Your task to perform on an android device: Go to location settings Image 0: 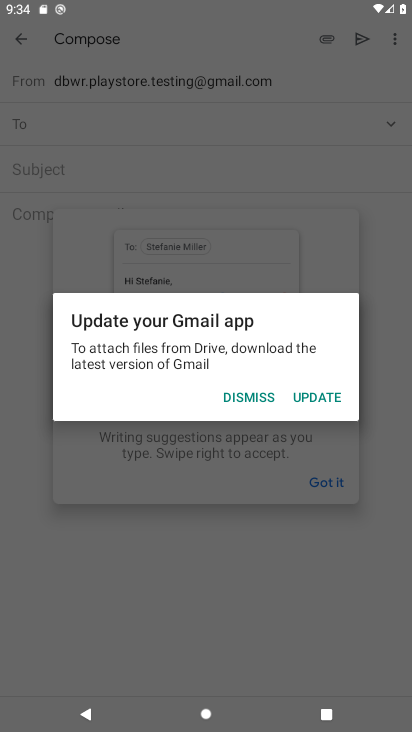
Step 0: press back button
Your task to perform on an android device: Go to location settings Image 1: 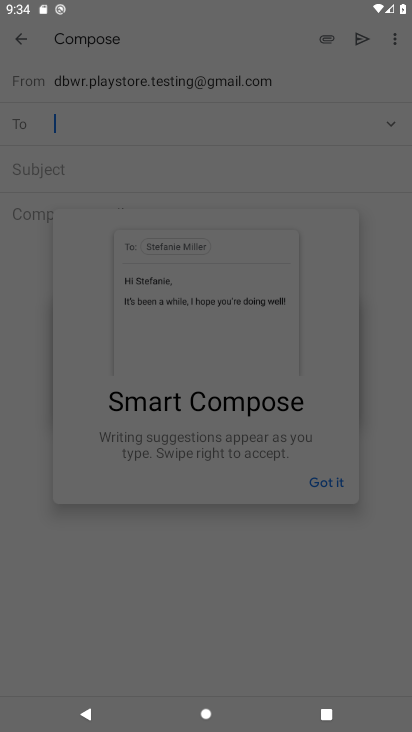
Step 1: press back button
Your task to perform on an android device: Go to location settings Image 2: 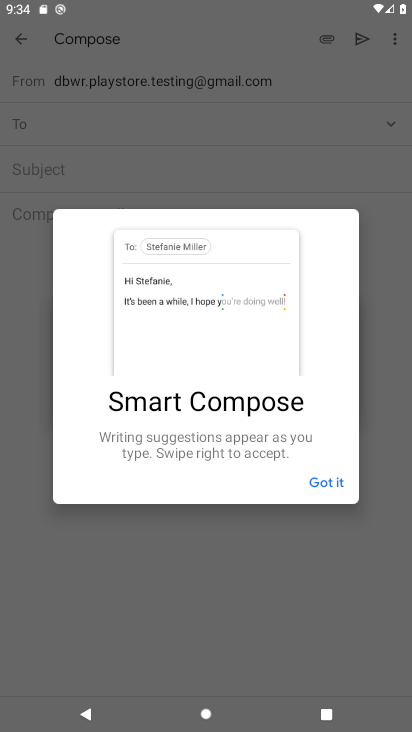
Step 2: press home button
Your task to perform on an android device: Go to location settings Image 3: 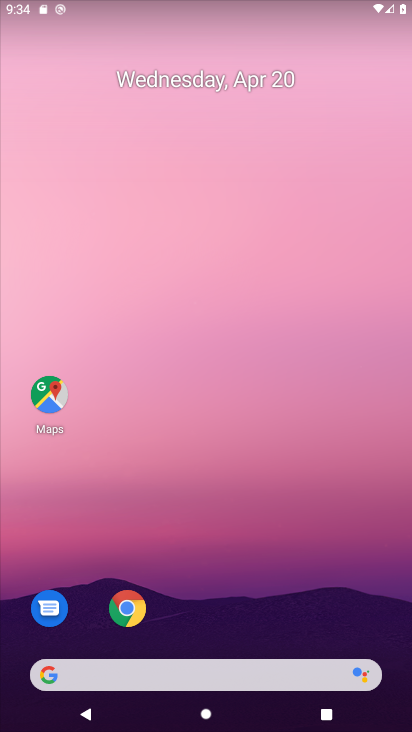
Step 3: drag from (187, 649) to (170, 219)
Your task to perform on an android device: Go to location settings Image 4: 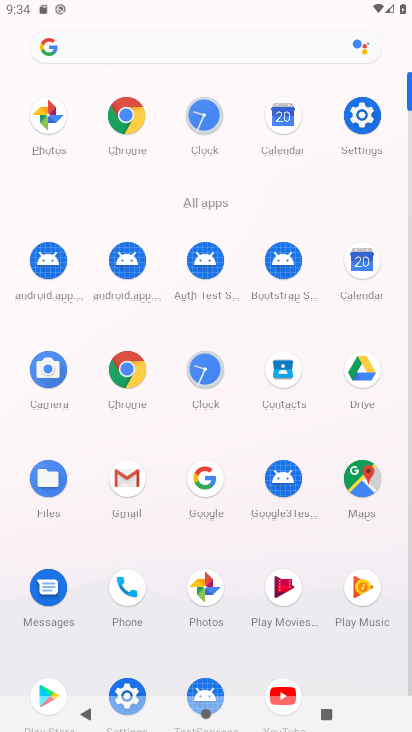
Step 4: click (367, 110)
Your task to perform on an android device: Go to location settings Image 5: 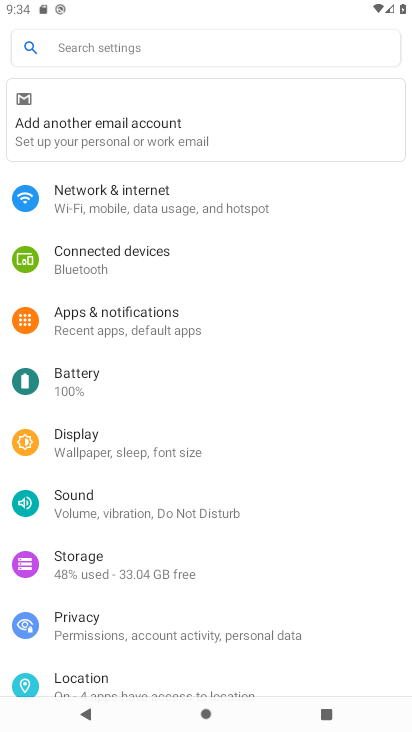
Step 5: click (68, 685)
Your task to perform on an android device: Go to location settings Image 6: 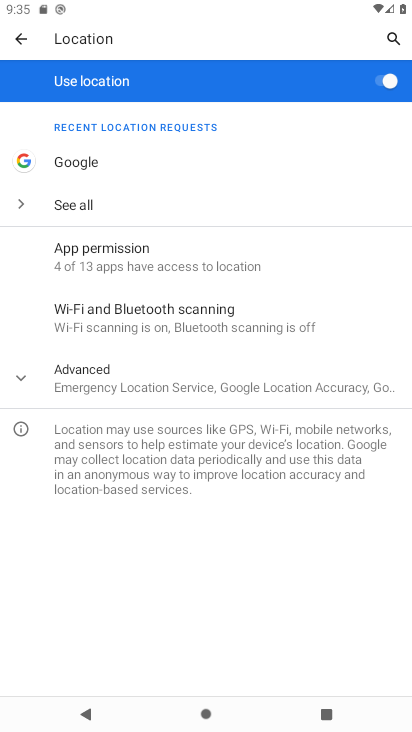
Step 6: click (27, 378)
Your task to perform on an android device: Go to location settings Image 7: 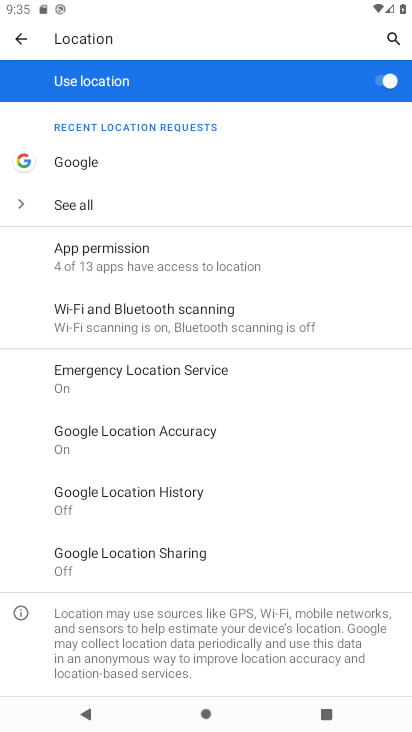
Step 7: task complete